Your task to perform on an android device: change the clock style Image 0: 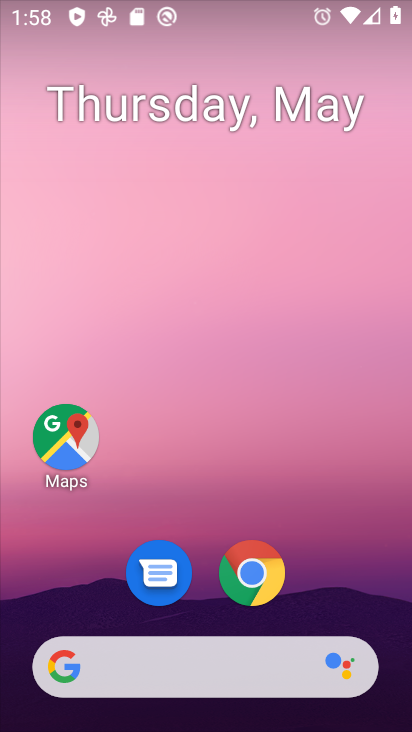
Step 0: drag from (399, 638) to (380, 318)
Your task to perform on an android device: change the clock style Image 1: 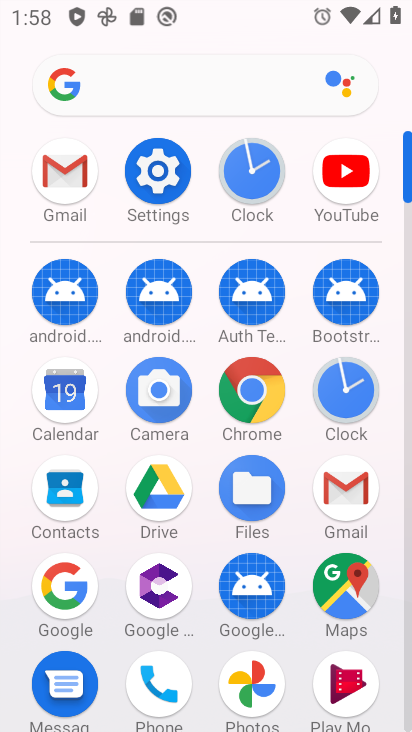
Step 1: click (351, 393)
Your task to perform on an android device: change the clock style Image 2: 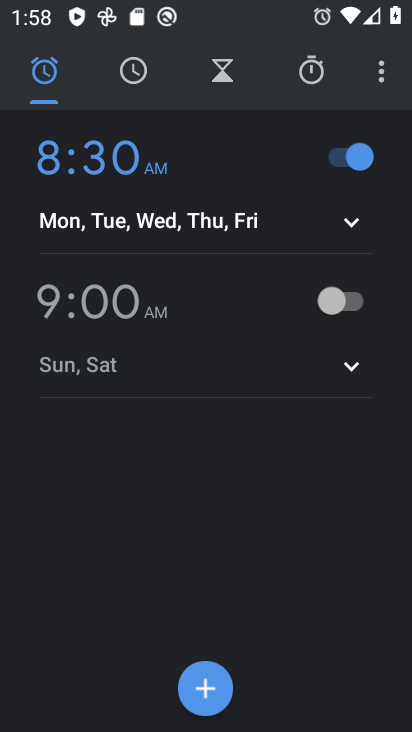
Step 2: click (382, 65)
Your task to perform on an android device: change the clock style Image 3: 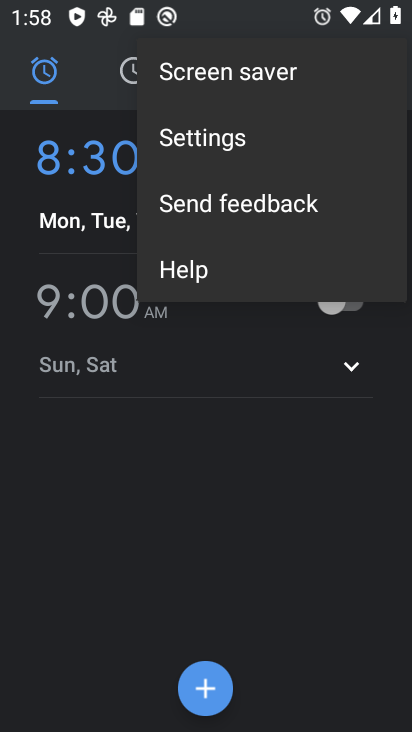
Step 3: click (215, 133)
Your task to perform on an android device: change the clock style Image 4: 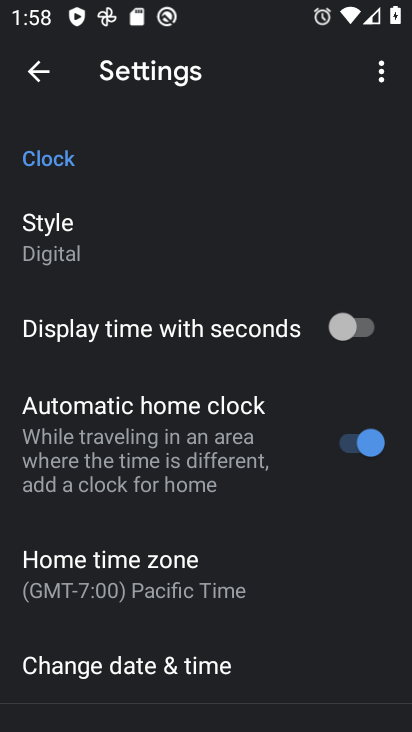
Step 4: click (56, 228)
Your task to perform on an android device: change the clock style Image 5: 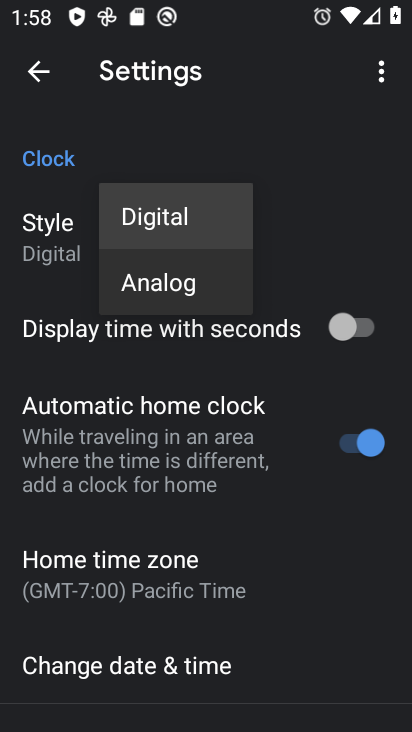
Step 5: click (151, 278)
Your task to perform on an android device: change the clock style Image 6: 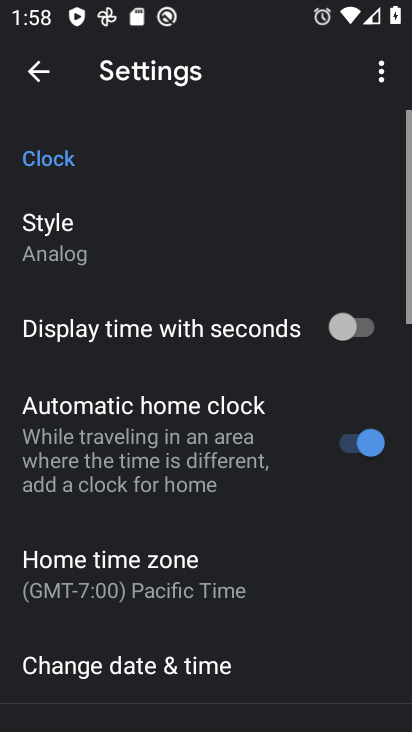
Step 6: task complete